Your task to perform on an android device: Go to network settings Image 0: 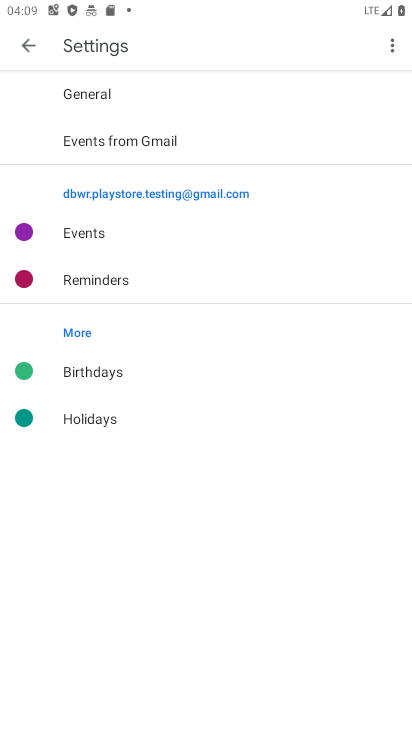
Step 0: press home button
Your task to perform on an android device: Go to network settings Image 1: 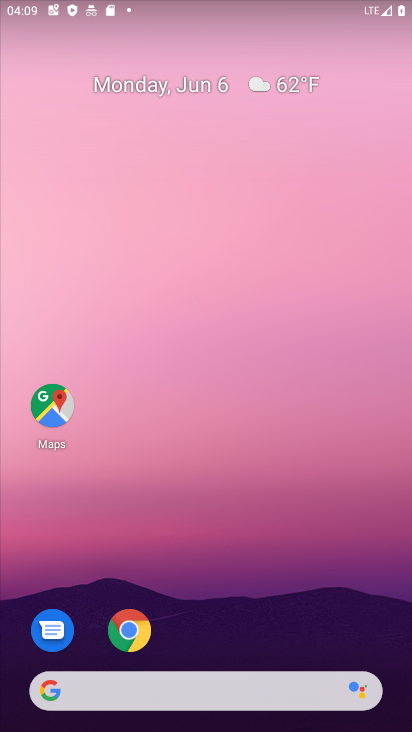
Step 1: drag from (284, 619) to (328, 11)
Your task to perform on an android device: Go to network settings Image 2: 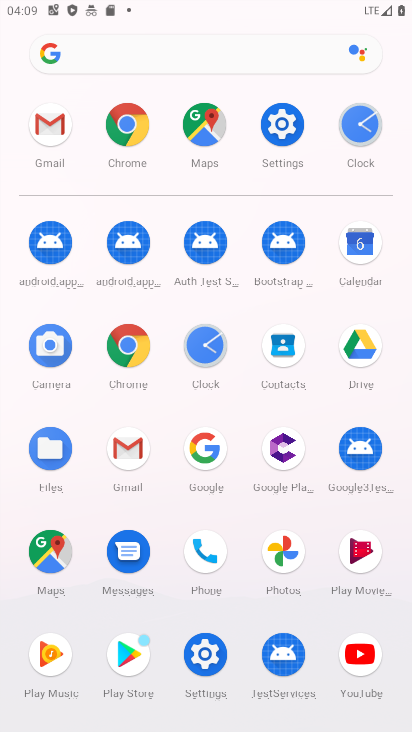
Step 2: click (288, 113)
Your task to perform on an android device: Go to network settings Image 3: 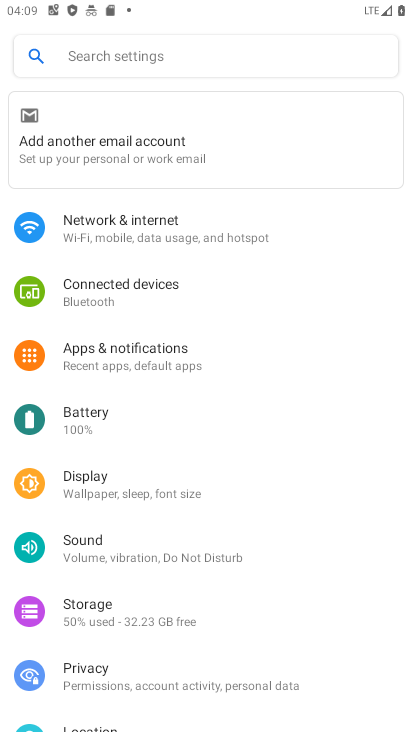
Step 3: click (146, 233)
Your task to perform on an android device: Go to network settings Image 4: 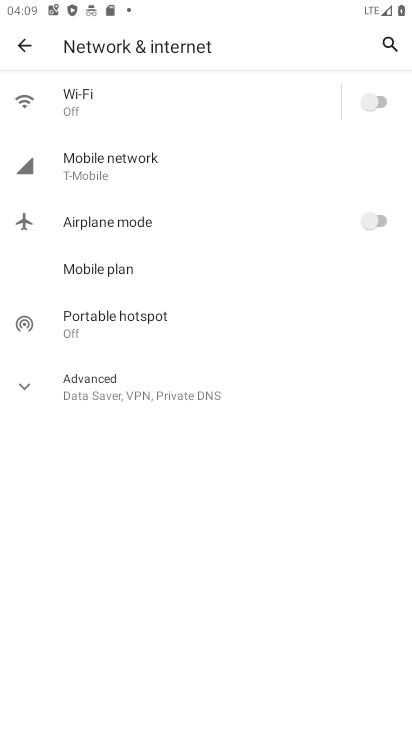
Step 4: click (131, 396)
Your task to perform on an android device: Go to network settings Image 5: 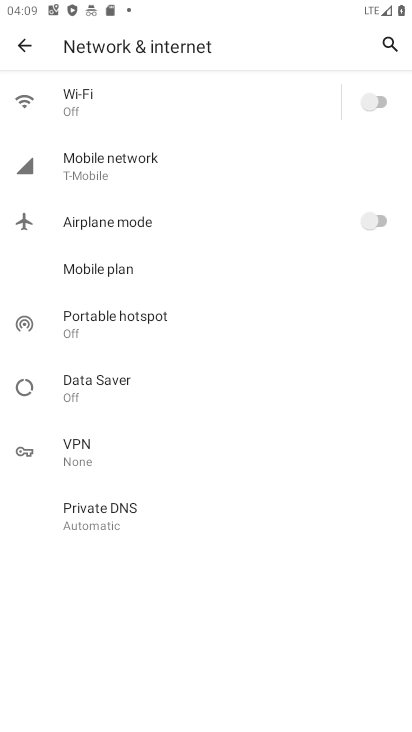
Step 5: task complete